Your task to perform on an android device: Search for "logitech g502" on walmart.com, select the first entry, and add it to the cart. Image 0: 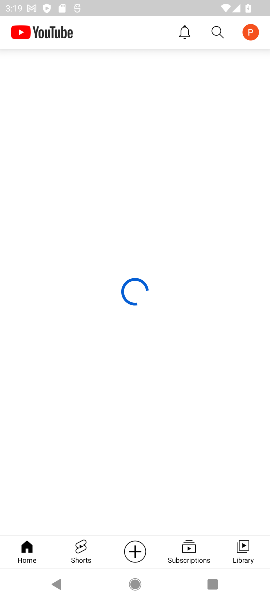
Step 0: press home button
Your task to perform on an android device: Search for "logitech g502" on walmart.com, select the first entry, and add it to the cart. Image 1: 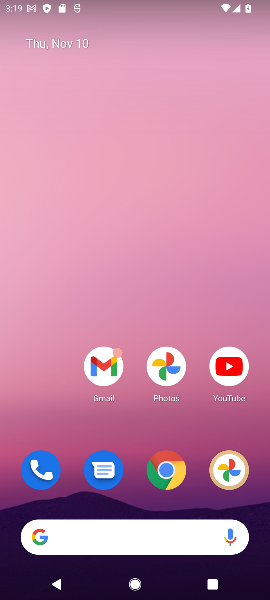
Step 1: click (167, 464)
Your task to perform on an android device: Search for "logitech g502" on walmart.com, select the first entry, and add it to the cart. Image 2: 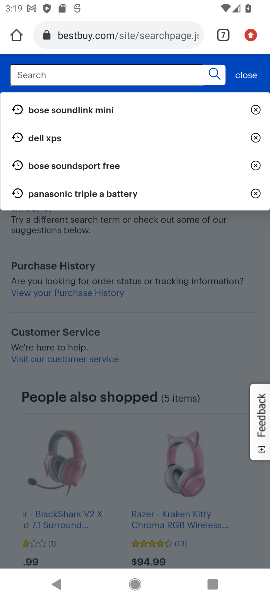
Step 2: click (223, 31)
Your task to perform on an android device: Search for "logitech g502" on walmart.com, select the first entry, and add it to the cart. Image 3: 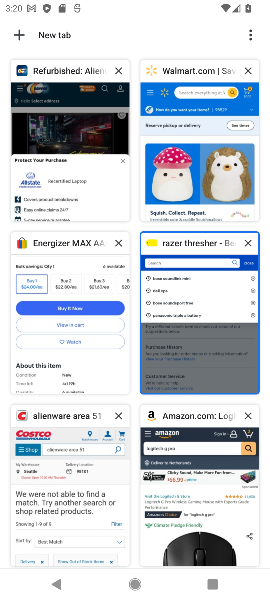
Step 3: click (194, 164)
Your task to perform on an android device: Search for "logitech g502" on walmart.com, select the first entry, and add it to the cart. Image 4: 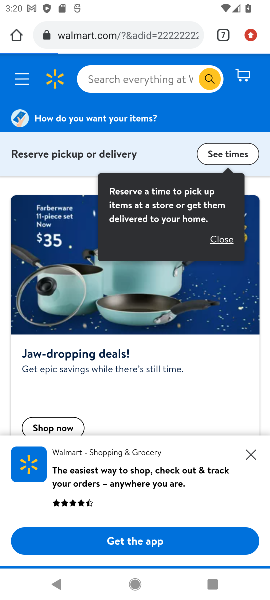
Step 4: click (137, 78)
Your task to perform on an android device: Search for "logitech g502" on walmart.com, select the first entry, and add it to the cart. Image 5: 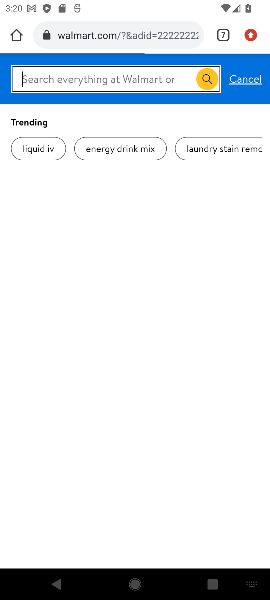
Step 5: type "logitech g502"
Your task to perform on an android device: Search for "logitech g502" on walmart.com, select the first entry, and add it to the cart. Image 6: 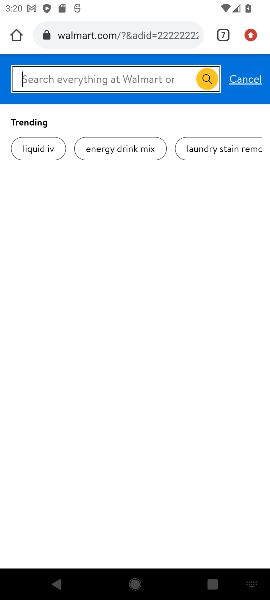
Step 6: click (253, 455)
Your task to perform on an android device: Search for "logitech g502" on walmart.com, select the first entry, and add it to the cart. Image 7: 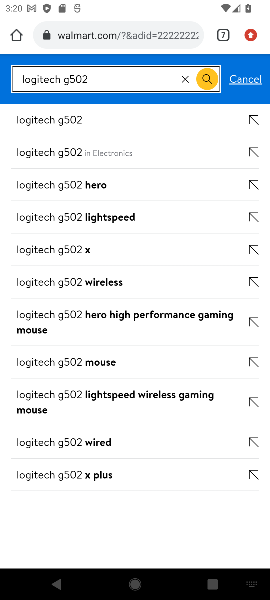
Step 7: click (54, 153)
Your task to perform on an android device: Search for "logitech g502" on walmart.com, select the first entry, and add it to the cart. Image 8: 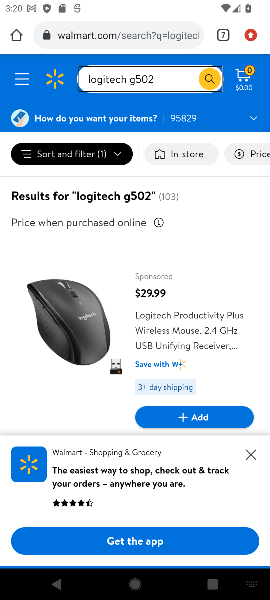
Step 8: click (249, 450)
Your task to perform on an android device: Search for "logitech g502" on walmart.com, select the first entry, and add it to the cart. Image 9: 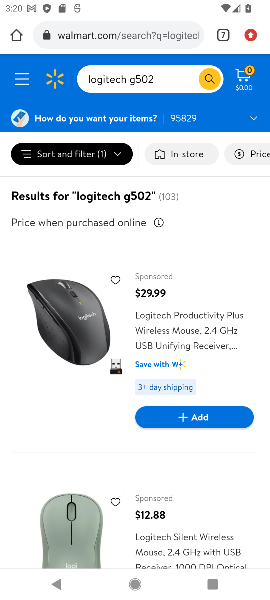
Step 9: drag from (186, 376) to (219, 181)
Your task to perform on an android device: Search for "logitech g502" on walmart.com, select the first entry, and add it to the cart. Image 10: 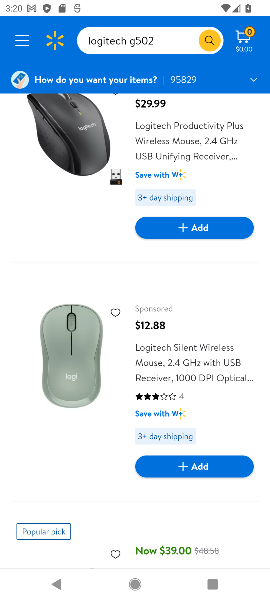
Step 10: drag from (209, 425) to (239, 278)
Your task to perform on an android device: Search for "logitech g502" on walmart.com, select the first entry, and add it to the cart. Image 11: 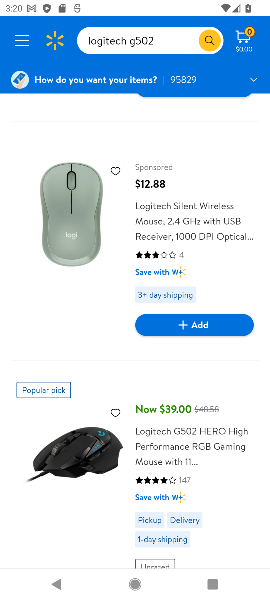
Step 11: drag from (210, 504) to (215, 342)
Your task to perform on an android device: Search for "logitech g502" on walmart.com, select the first entry, and add it to the cart. Image 12: 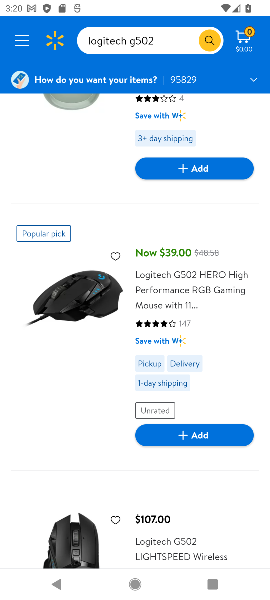
Step 12: click (199, 437)
Your task to perform on an android device: Search for "logitech g502" on walmart.com, select the first entry, and add it to the cart. Image 13: 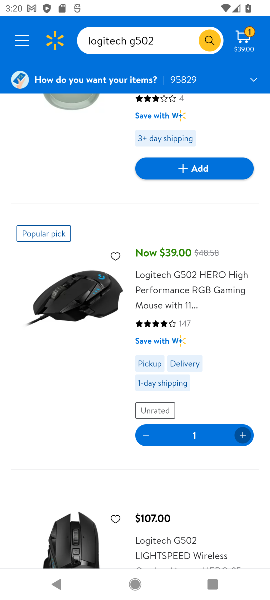
Step 13: task complete